Your task to perform on an android device: Open maps Image 0: 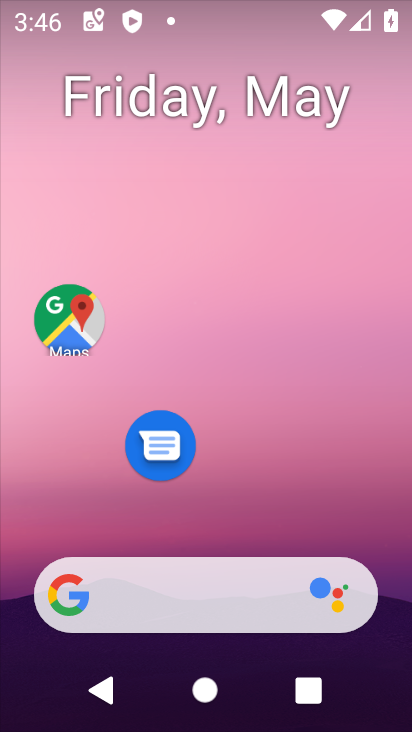
Step 0: click (70, 306)
Your task to perform on an android device: Open maps Image 1: 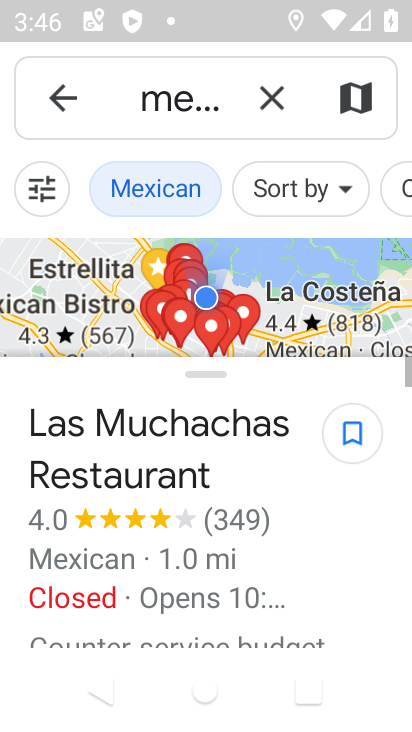
Step 1: click (79, 101)
Your task to perform on an android device: Open maps Image 2: 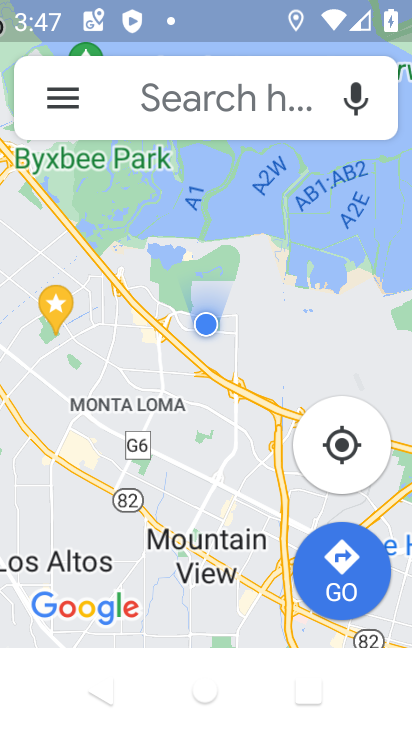
Step 2: task complete